Your task to perform on an android device: Go to wifi settings Image 0: 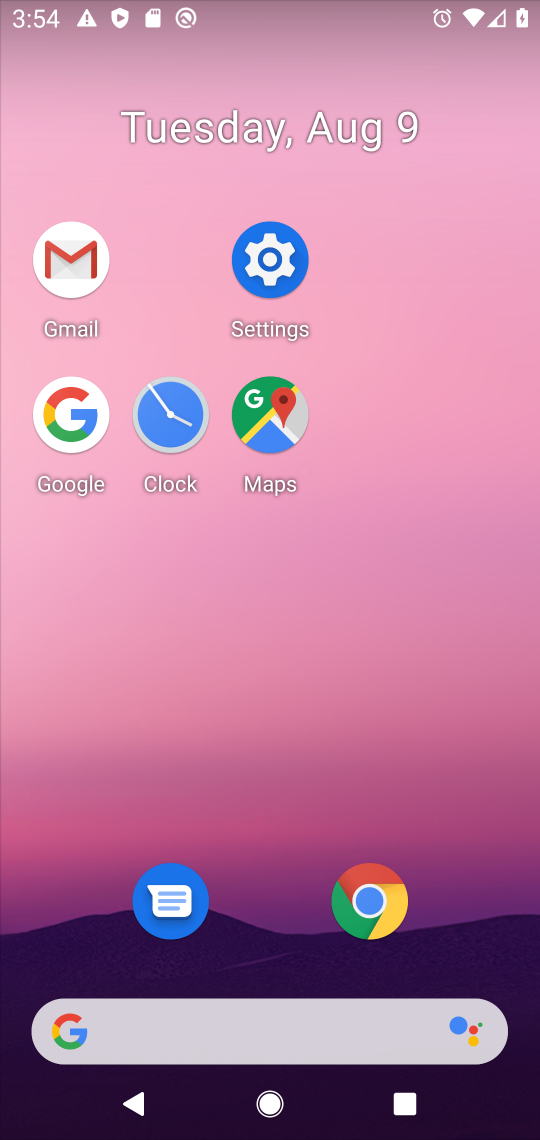
Step 0: click (286, 249)
Your task to perform on an android device: Go to wifi settings Image 1: 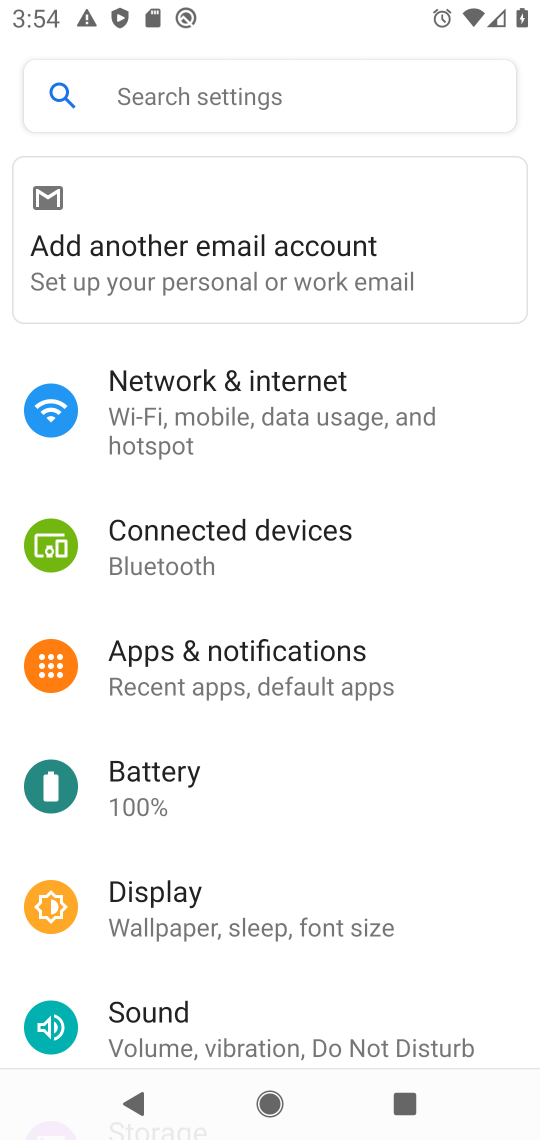
Step 1: click (218, 436)
Your task to perform on an android device: Go to wifi settings Image 2: 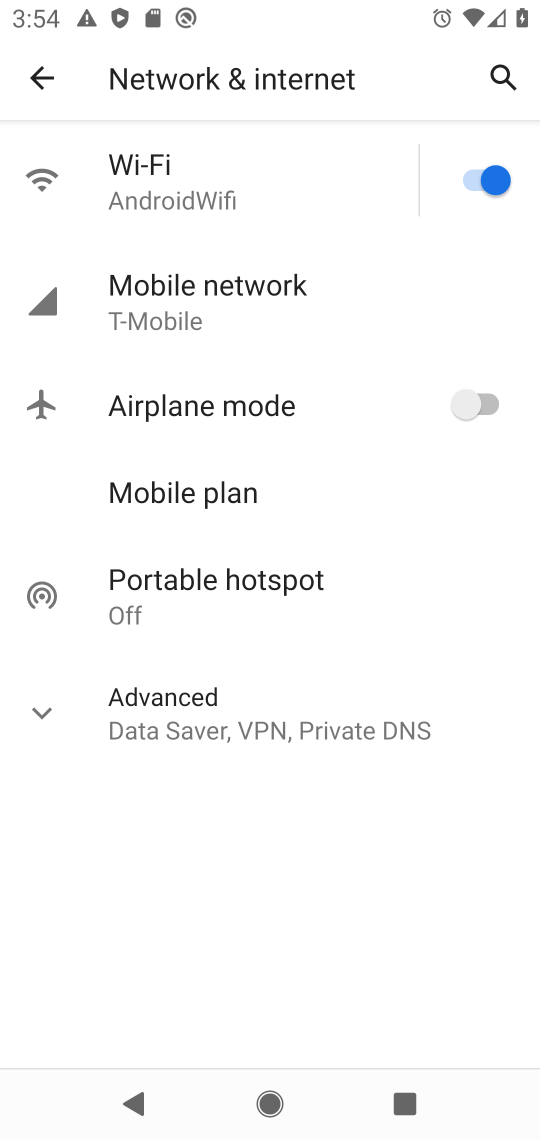
Step 2: click (260, 136)
Your task to perform on an android device: Go to wifi settings Image 3: 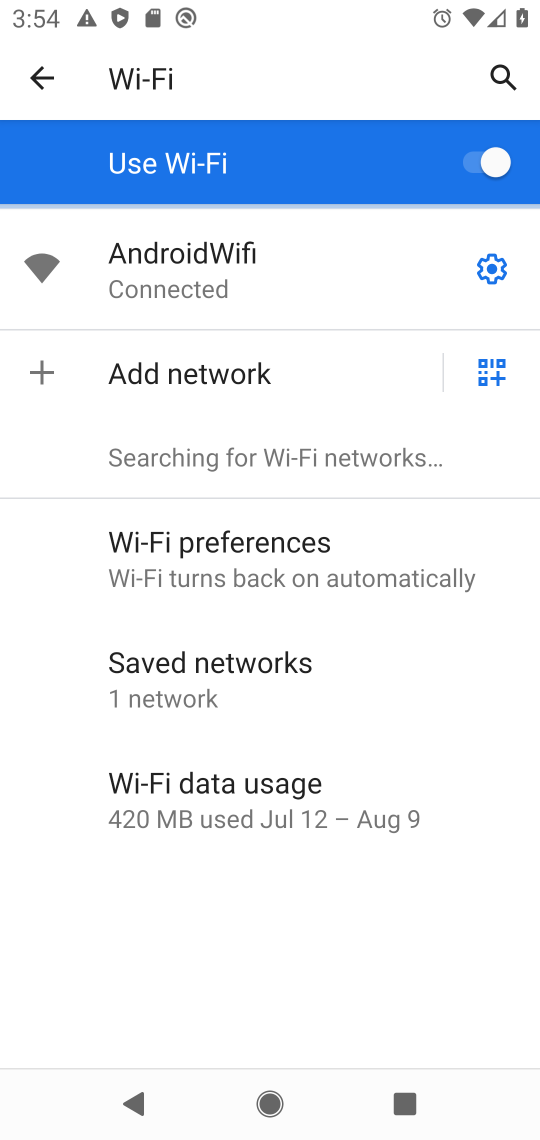
Step 3: click (490, 258)
Your task to perform on an android device: Go to wifi settings Image 4: 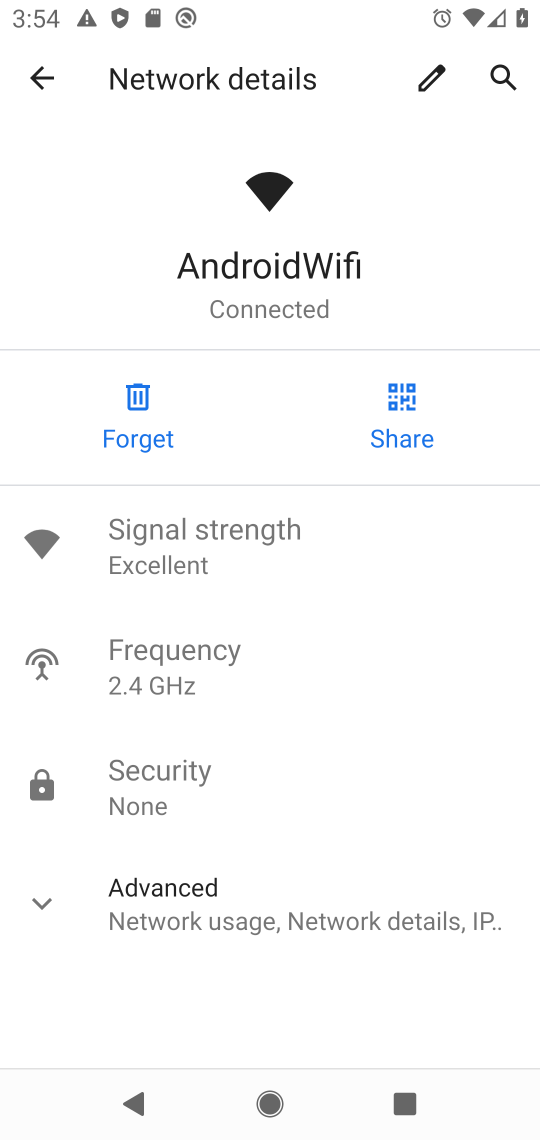
Step 4: task complete